Your task to perform on an android device: Go to accessibility settings Image 0: 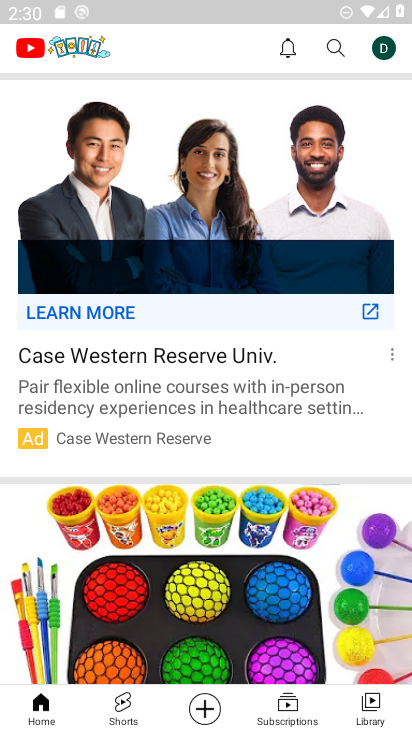
Step 0: press home button
Your task to perform on an android device: Go to accessibility settings Image 1: 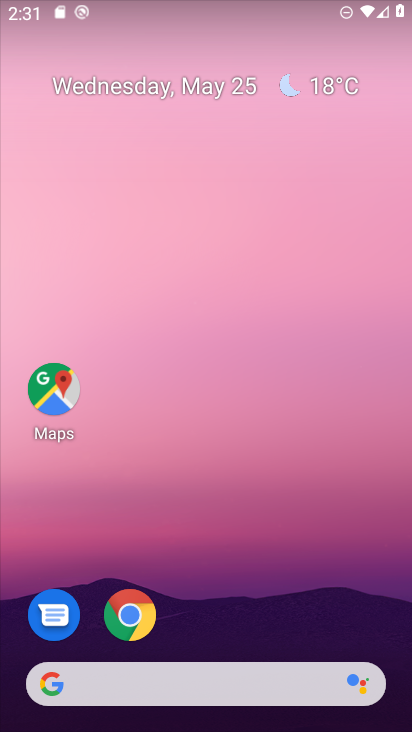
Step 1: drag from (245, 578) to (308, 20)
Your task to perform on an android device: Go to accessibility settings Image 2: 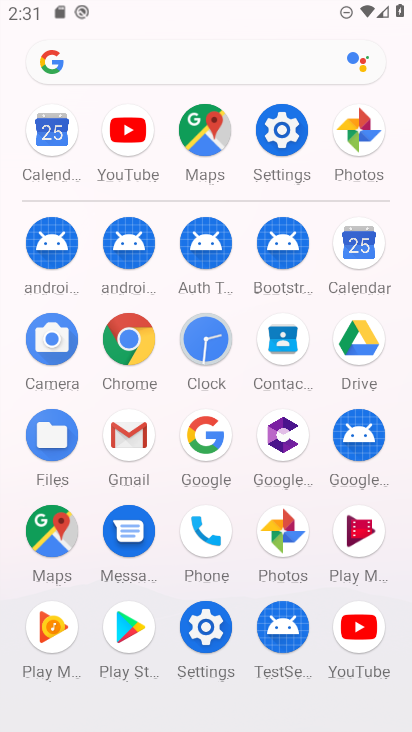
Step 2: click (286, 133)
Your task to perform on an android device: Go to accessibility settings Image 3: 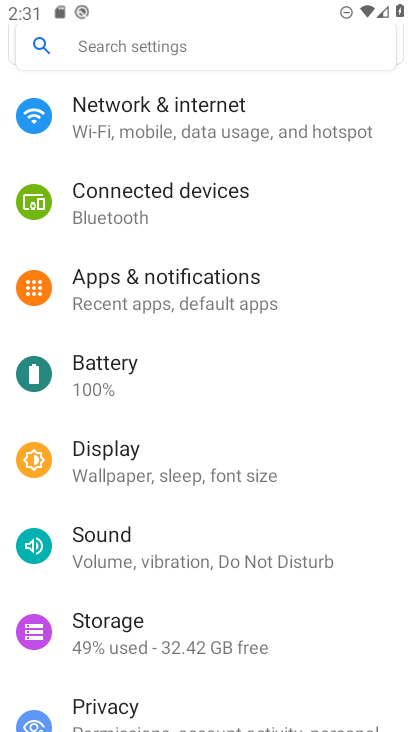
Step 3: drag from (191, 596) to (262, 77)
Your task to perform on an android device: Go to accessibility settings Image 4: 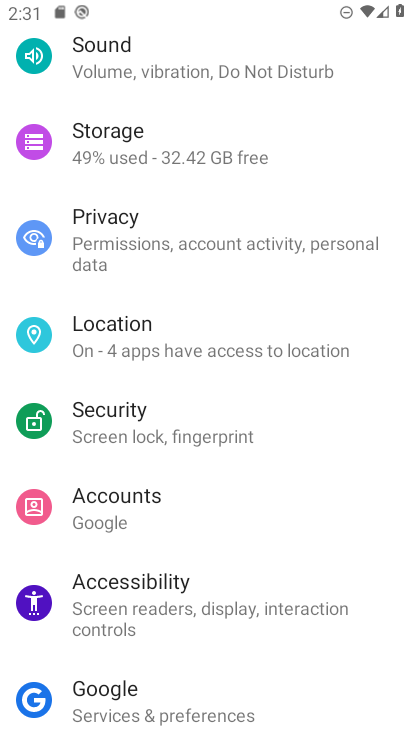
Step 4: click (140, 579)
Your task to perform on an android device: Go to accessibility settings Image 5: 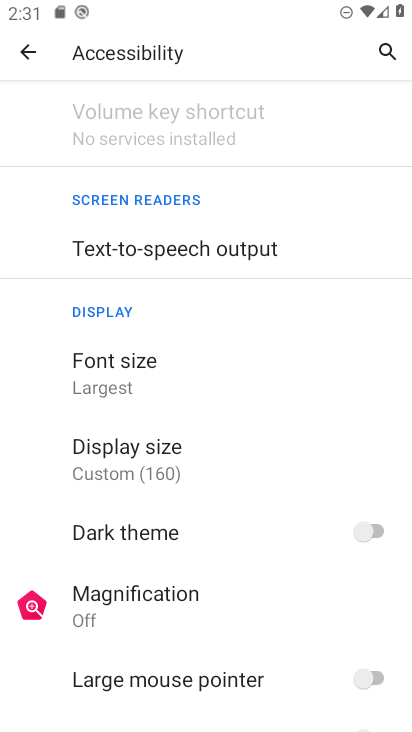
Step 5: task complete